Your task to perform on an android device: Show me productivity apps on the Play Store Image 0: 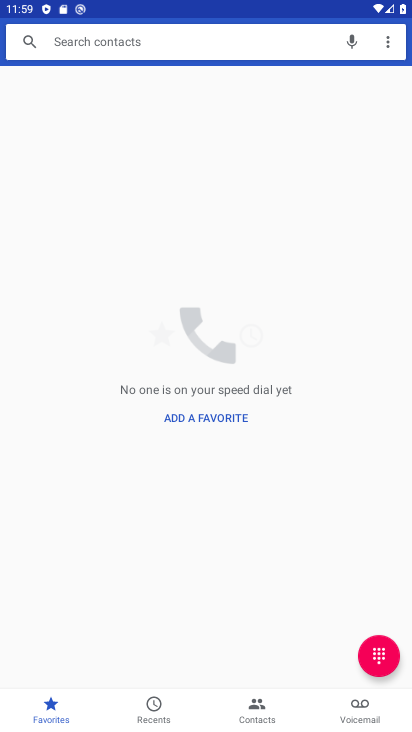
Step 0: press home button
Your task to perform on an android device: Show me productivity apps on the Play Store Image 1: 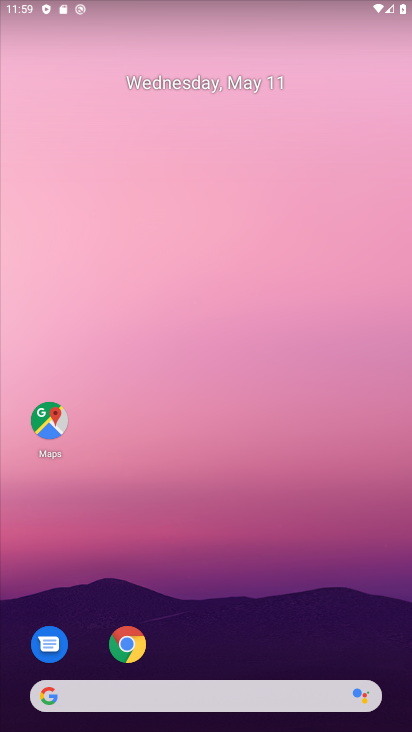
Step 1: drag from (256, 595) to (206, 65)
Your task to perform on an android device: Show me productivity apps on the Play Store Image 2: 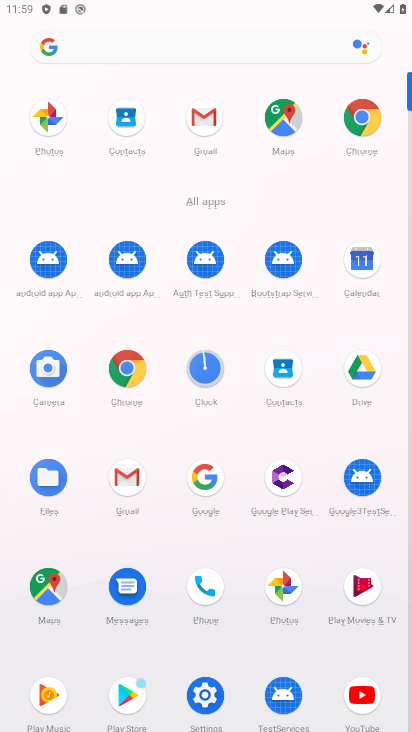
Step 2: click (128, 684)
Your task to perform on an android device: Show me productivity apps on the Play Store Image 3: 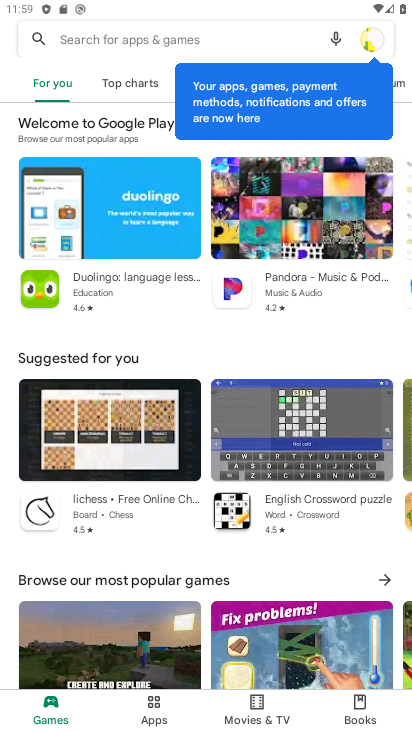
Step 3: click (134, 33)
Your task to perform on an android device: Show me productivity apps on the Play Store Image 4: 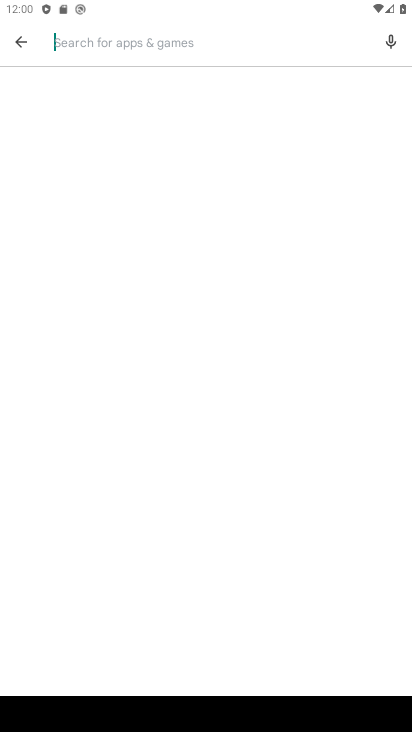
Step 4: type "productivity apps"
Your task to perform on an android device: Show me productivity apps on the Play Store Image 5: 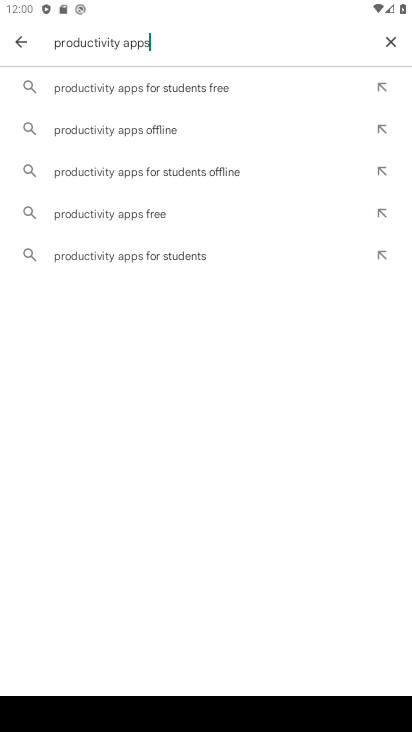
Step 5: click (114, 124)
Your task to perform on an android device: Show me productivity apps on the Play Store Image 6: 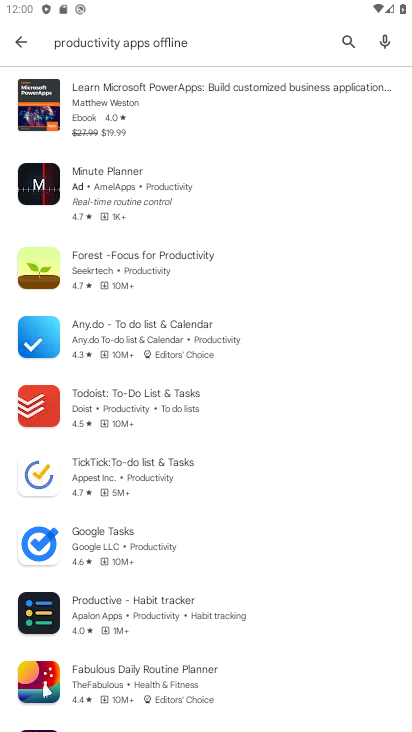
Step 6: task complete